Your task to perform on an android device: turn on location history Image 0: 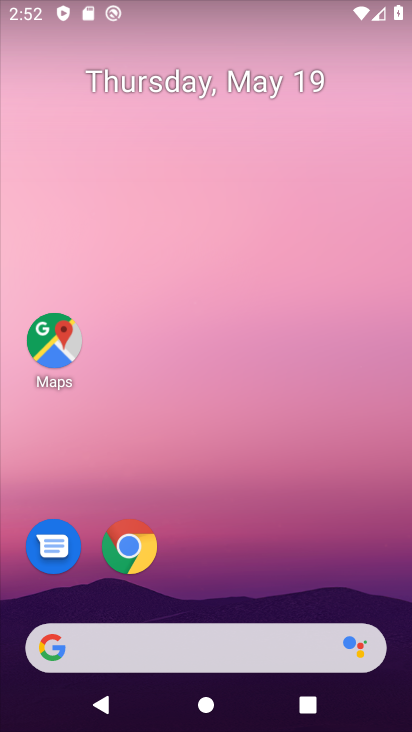
Step 0: drag from (206, 591) to (253, 282)
Your task to perform on an android device: turn on location history Image 1: 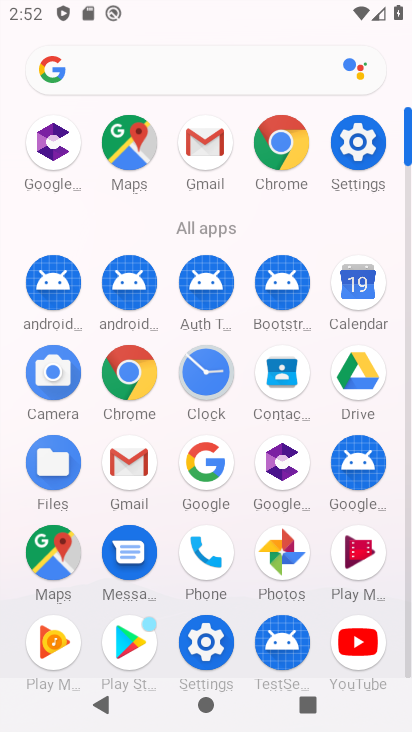
Step 1: click (211, 623)
Your task to perform on an android device: turn on location history Image 2: 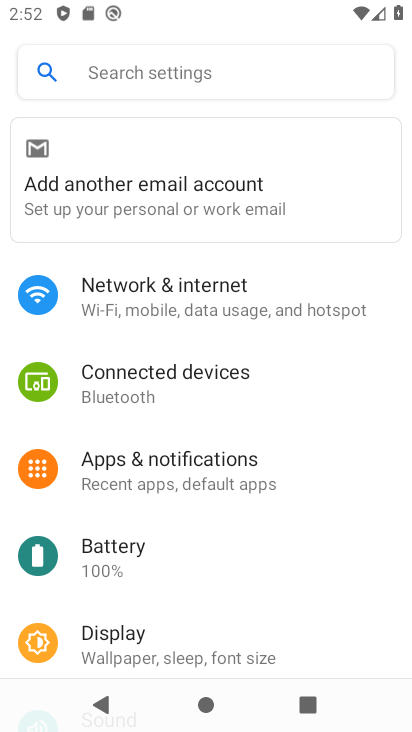
Step 2: drag from (208, 558) to (232, 285)
Your task to perform on an android device: turn on location history Image 3: 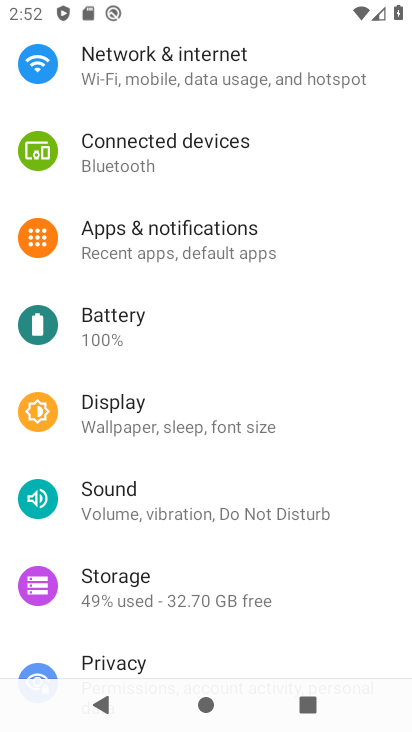
Step 3: drag from (194, 572) to (206, 243)
Your task to perform on an android device: turn on location history Image 4: 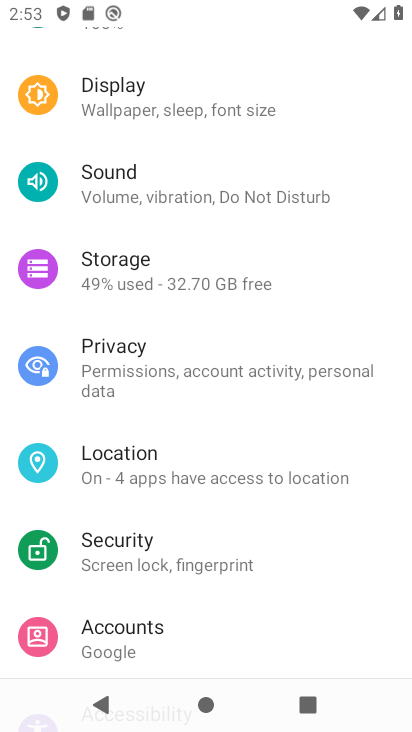
Step 4: click (170, 464)
Your task to perform on an android device: turn on location history Image 5: 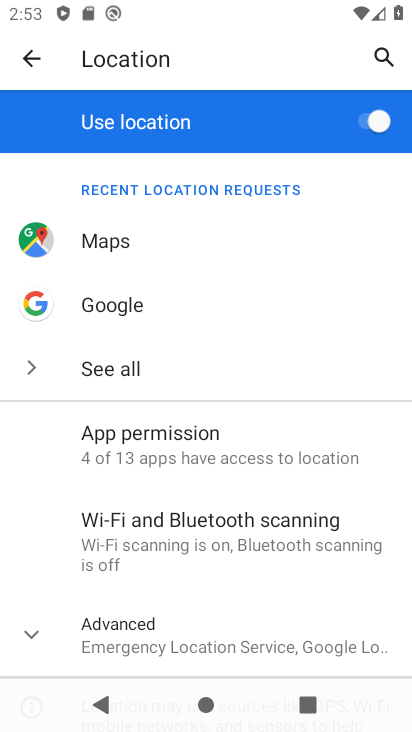
Step 5: click (134, 637)
Your task to perform on an android device: turn on location history Image 6: 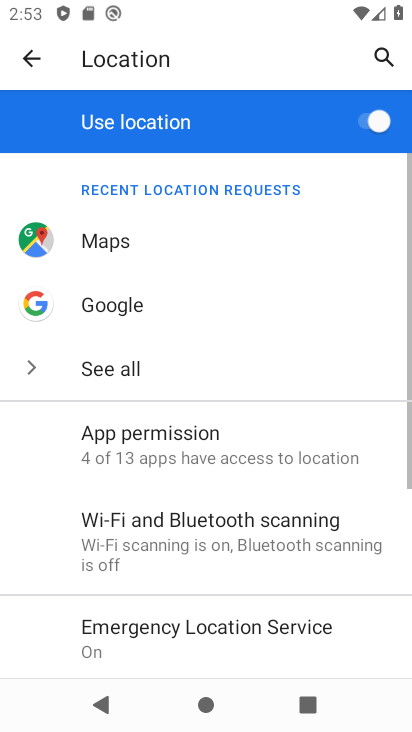
Step 6: drag from (163, 621) to (209, 340)
Your task to perform on an android device: turn on location history Image 7: 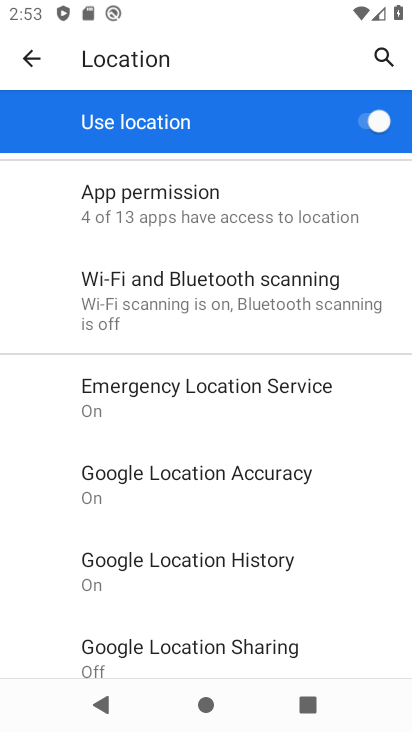
Step 7: click (170, 575)
Your task to perform on an android device: turn on location history Image 8: 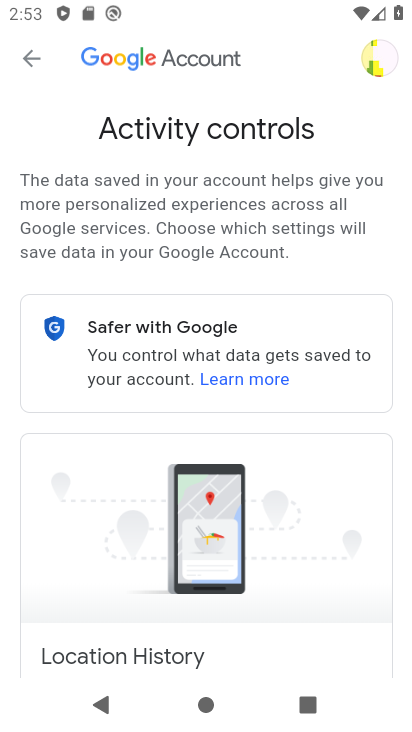
Step 8: task complete